Your task to perform on an android device: turn off priority inbox in the gmail app Image 0: 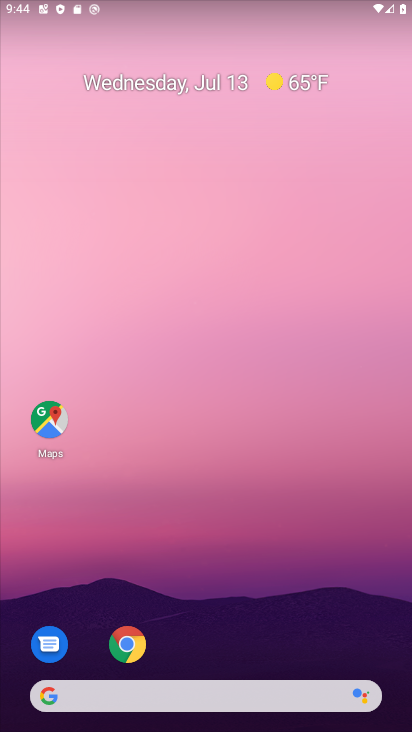
Step 0: drag from (301, 572) to (299, 62)
Your task to perform on an android device: turn off priority inbox in the gmail app Image 1: 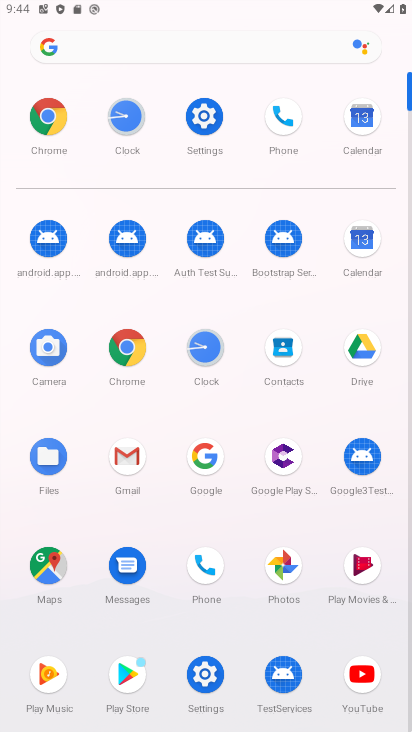
Step 1: click (129, 448)
Your task to perform on an android device: turn off priority inbox in the gmail app Image 2: 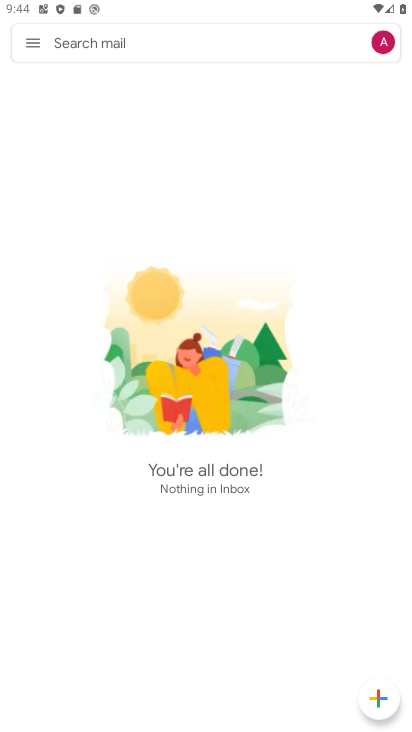
Step 2: click (28, 41)
Your task to perform on an android device: turn off priority inbox in the gmail app Image 3: 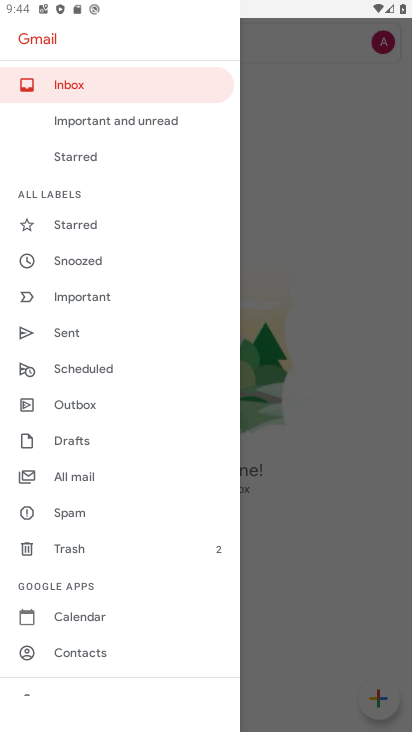
Step 3: drag from (92, 563) to (148, 100)
Your task to perform on an android device: turn off priority inbox in the gmail app Image 4: 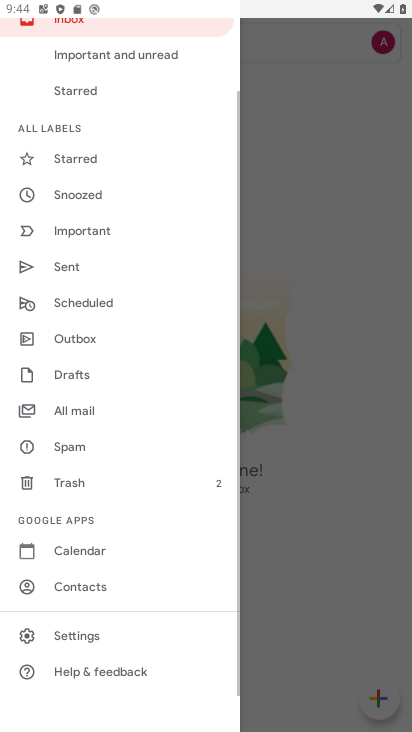
Step 4: click (72, 624)
Your task to perform on an android device: turn off priority inbox in the gmail app Image 5: 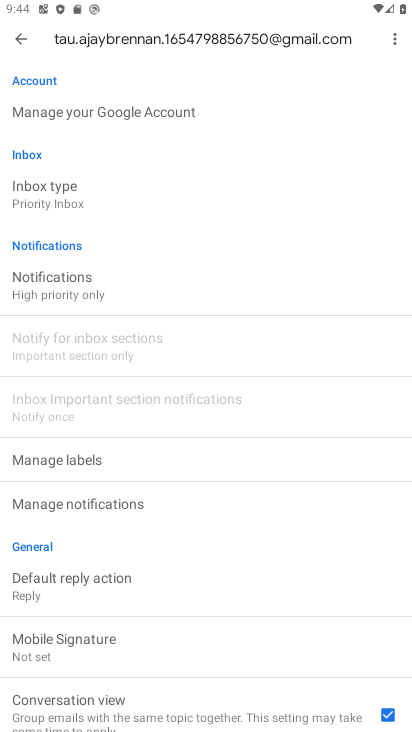
Step 5: click (15, 190)
Your task to perform on an android device: turn off priority inbox in the gmail app Image 6: 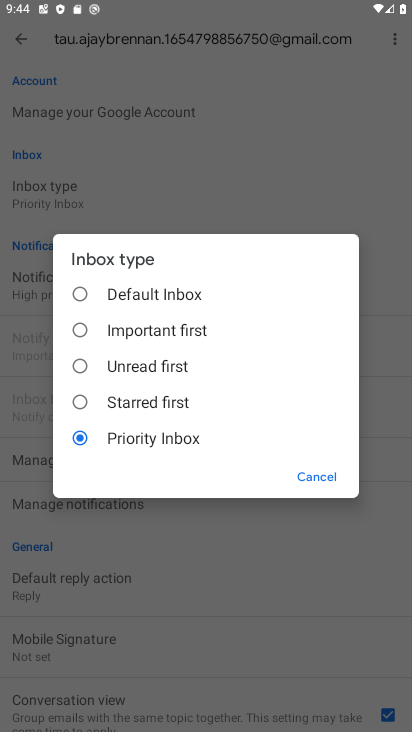
Step 6: click (144, 292)
Your task to perform on an android device: turn off priority inbox in the gmail app Image 7: 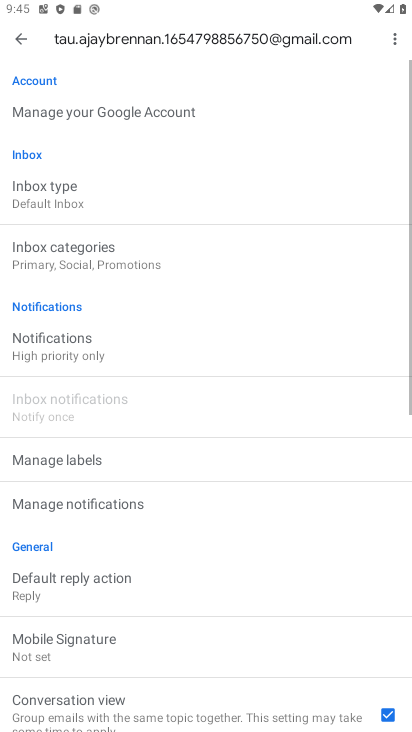
Step 7: task complete